Your task to perform on an android device: open the mobile data screen to see how much data has been used Image 0: 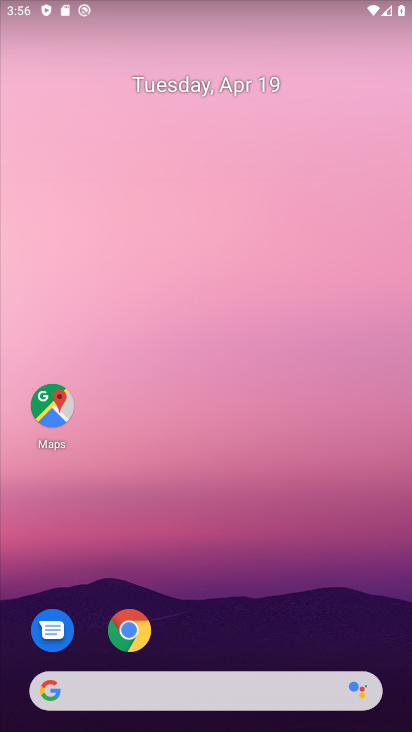
Step 0: drag from (321, 524) to (224, 2)
Your task to perform on an android device: open the mobile data screen to see how much data has been used Image 1: 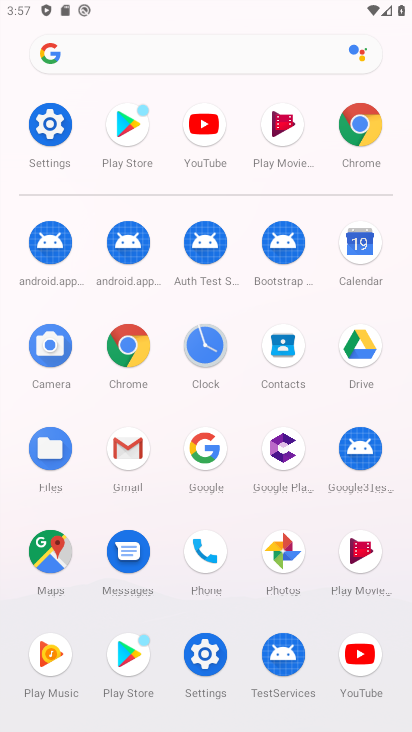
Step 1: click (43, 129)
Your task to perform on an android device: open the mobile data screen to see how much data has been used Image 2: 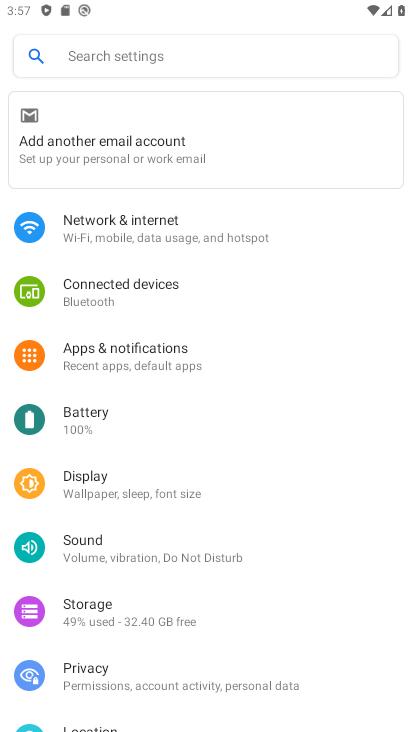
Step 2: click (163, 226)
Your task to perform on an android device: open the mobile data screen to see how much data has been used Image 3: 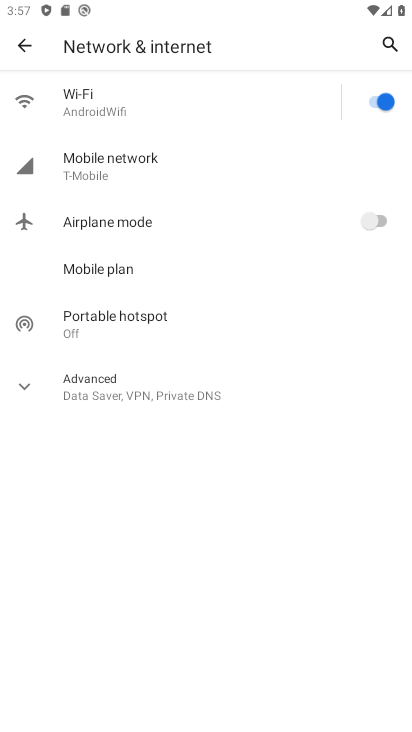
Step 3: click (80, 170)
Your task to perform on an android device: open the mobile data screen to see how much data has been used Image 4: 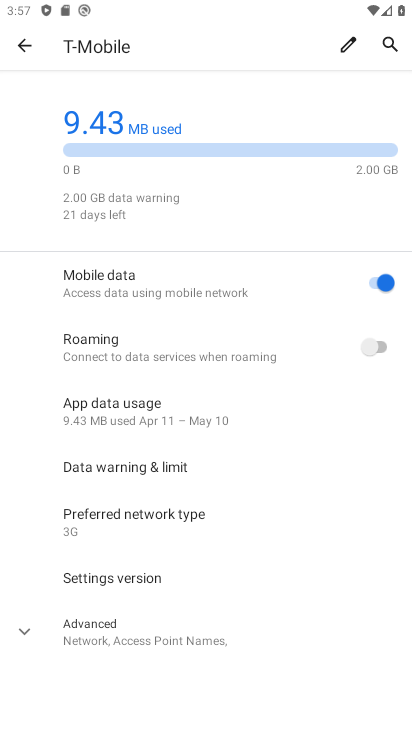
Step 4: task complete